Your task to perform on an android device: see tabs open on other devices in the chrome app Image 0: 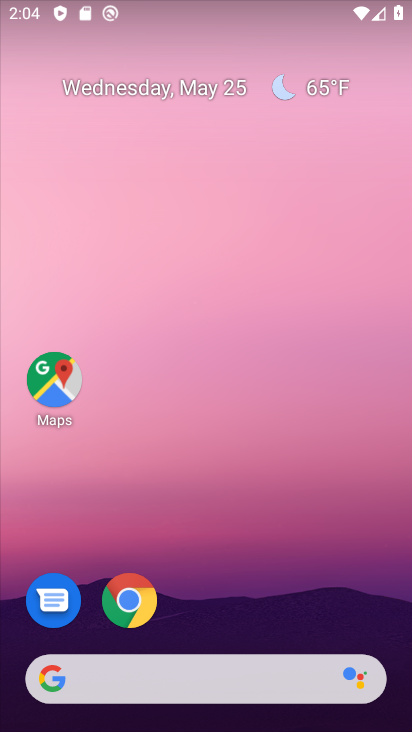
Step 0: drag from (301, 577) to (241, 184)
Your task to perform on an android device: see tabs open on other devices in the chrome app Image 1: 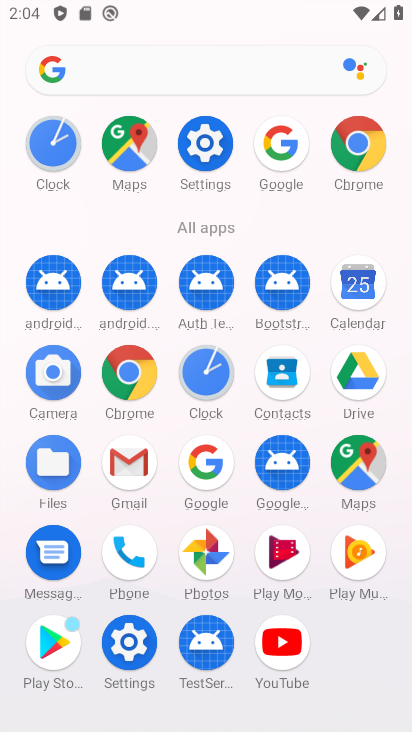
Step 1: click (350, 132)
Your task to perform on an android device: see tabs open on other devices in the chrome app Image 2: 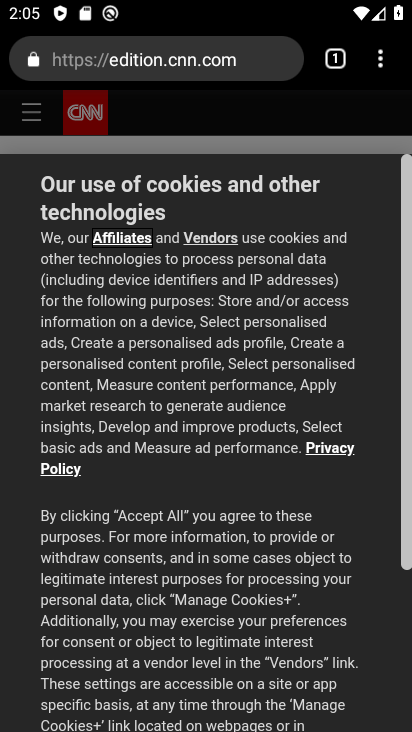
Step 2: click (387, 55)
Your task to perform on an android device: see tabs open on other devices in the chrome app Image 3: 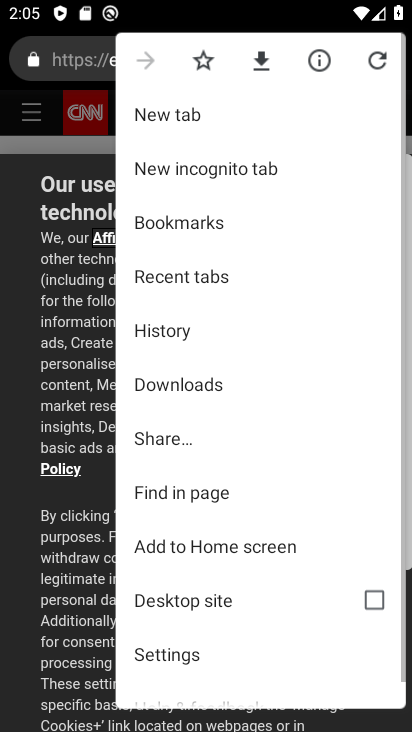
Step 3: drag from (196, 559) to (253, 174)
Your task to perform on an android device: see tabs open on other devices in the chrome app Image 4: 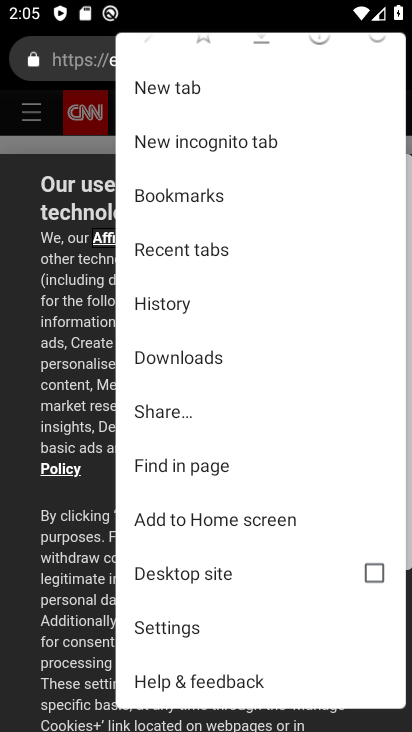
Step 4: click (188, 256)
Your task to perform on an android device: see tabs open on other devices in the chrome app Image 5: 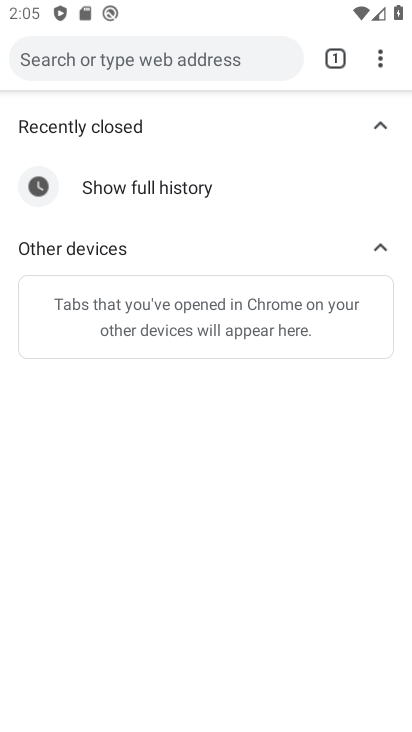
Step 5: task complete